Your task to perform on an android device: Search for usb-c on ebay.com, select the first entry, add it to the cart, then select checkout. Image 0: 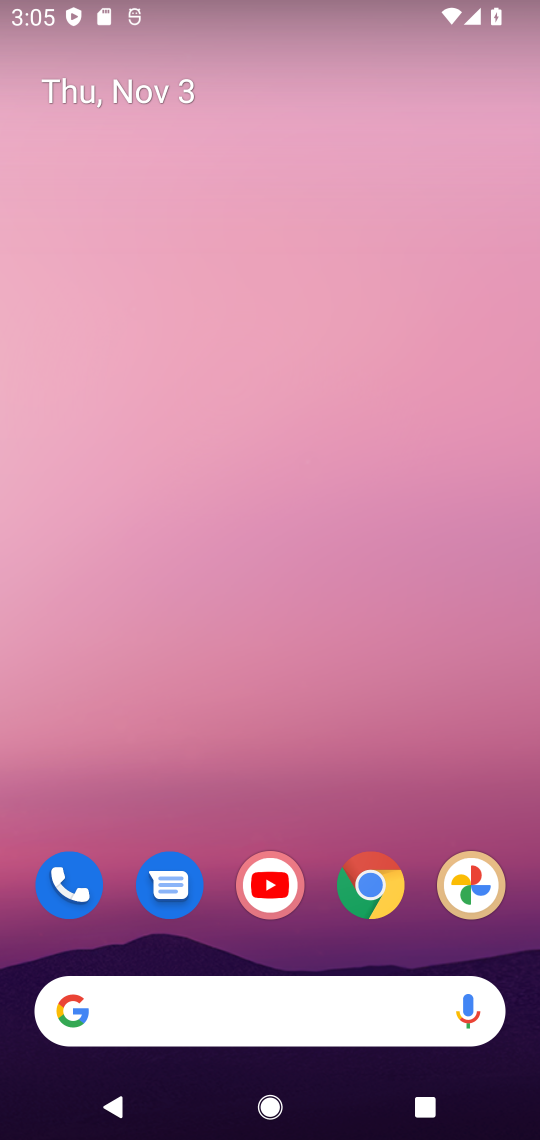
Step 0: drag from (320, 955) to (342, 31)
Your task to perform on an android device: Search for usb-c on ebay.com, select the first entry, add it to the cart, then select checkout. Image 1: 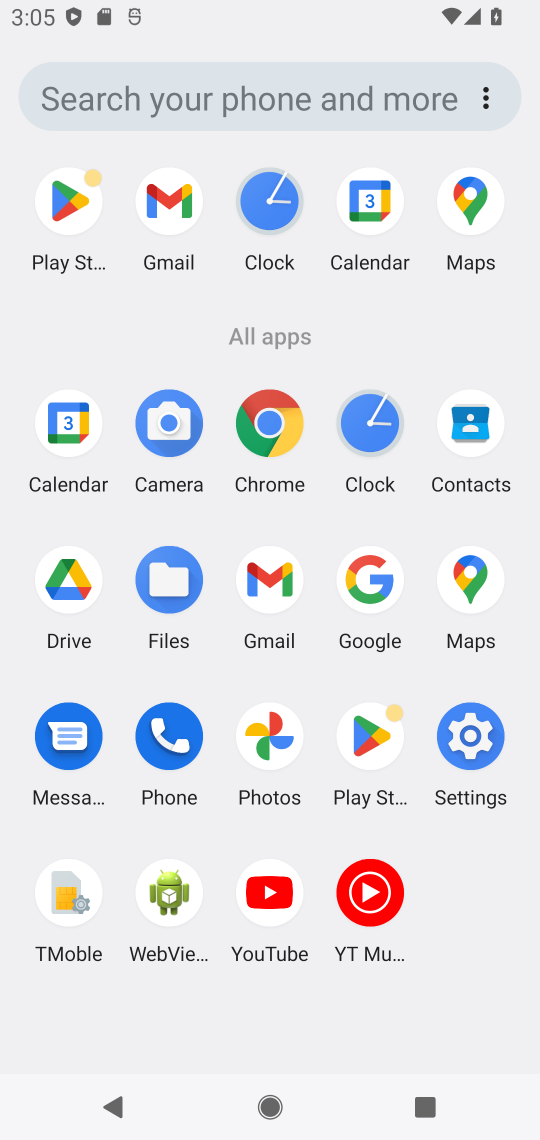
Step 1: click (265, 417)
Your task to perform on an android device: Search for usb-c on ebay.com, select the first entry, add it to the cart, then select checkout. Image 2: 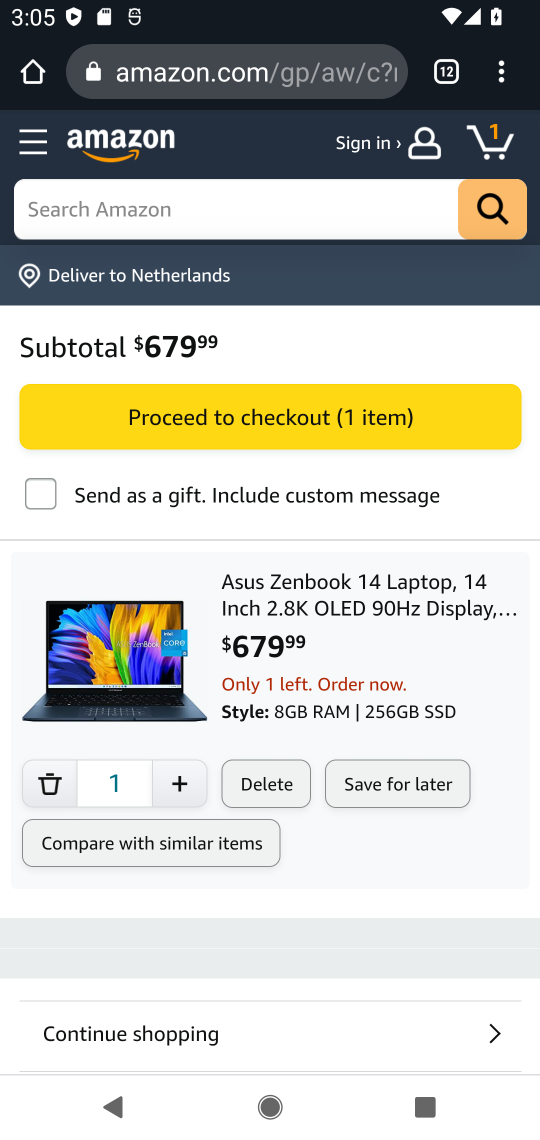
Step 2: drag from (503, 87) to (259, 256)
Your task to perform on an android device: Search for usb-c on ebay.com, select the first entry, add it to the cart, then select checkout. Image 3: 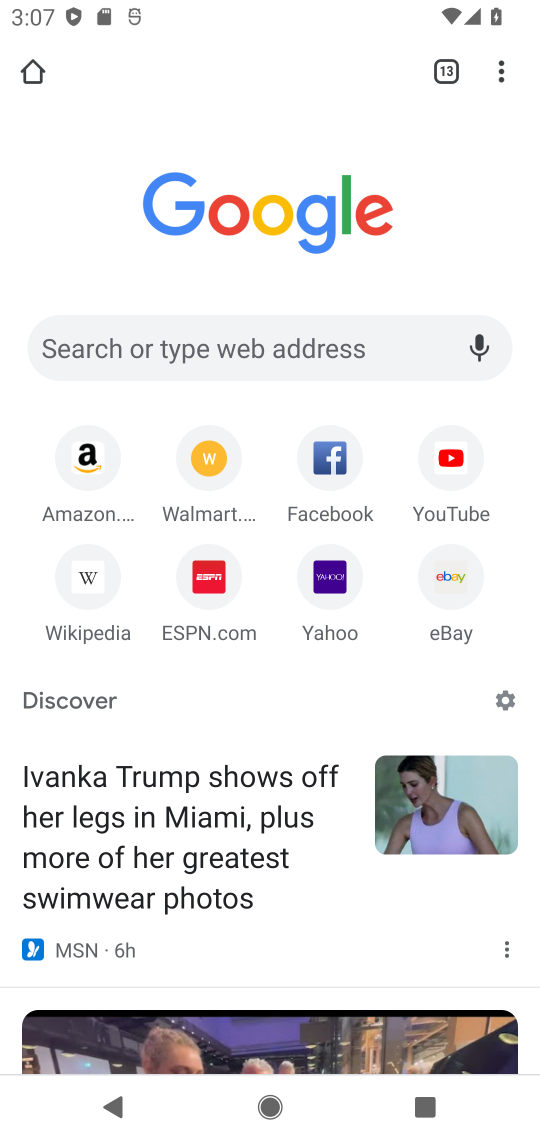
Step 3: click (221, 351)
Your task to perform on an android device: Search for usb-c on ebay.com, select the first entry, add it to the cart, then select checkout. Image 4: 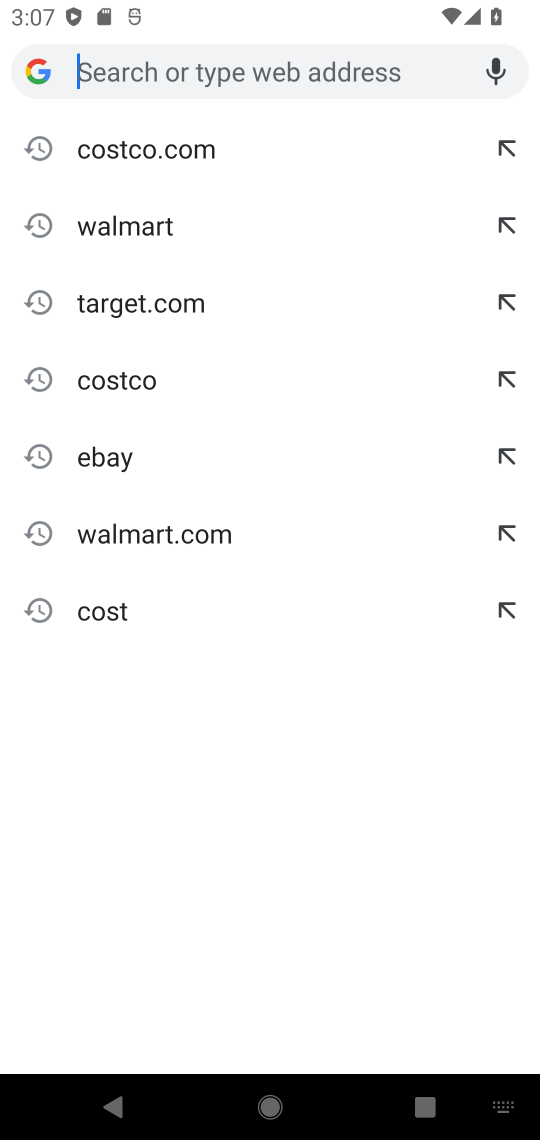
Step 4: type "ebay.com"
Your task to perform on an android device: Search for usb-c on ebay.com, select the first entry, add it to the cart, then select checkout. Image 5: 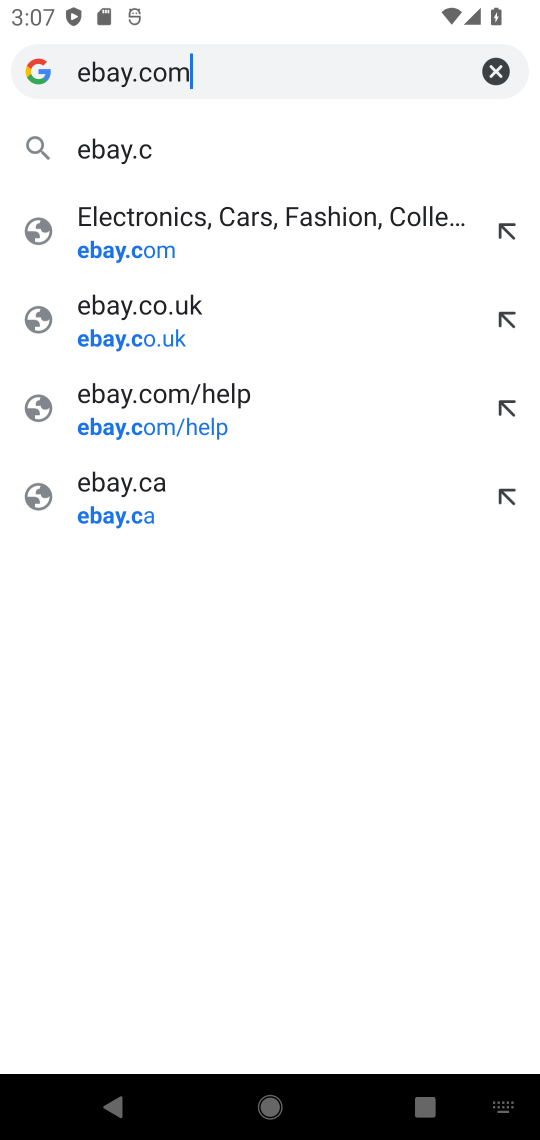
Step 5: type ""
Your task to perform on an android device: Search for usb-c on ebay.com, select the first entry, add it to the cart, then select checkout. Image 6: 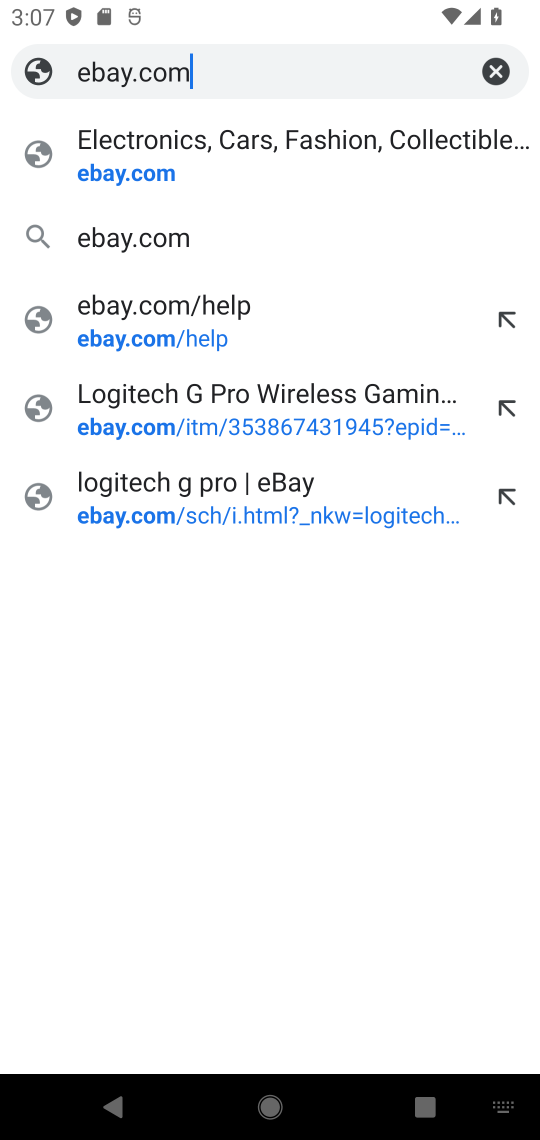
Step 6: click (140, 241)
Your task to perform on an android device: Search for usb-c on ebay.com, select the first entry, add it to the cart, then select checkout. Image 7: 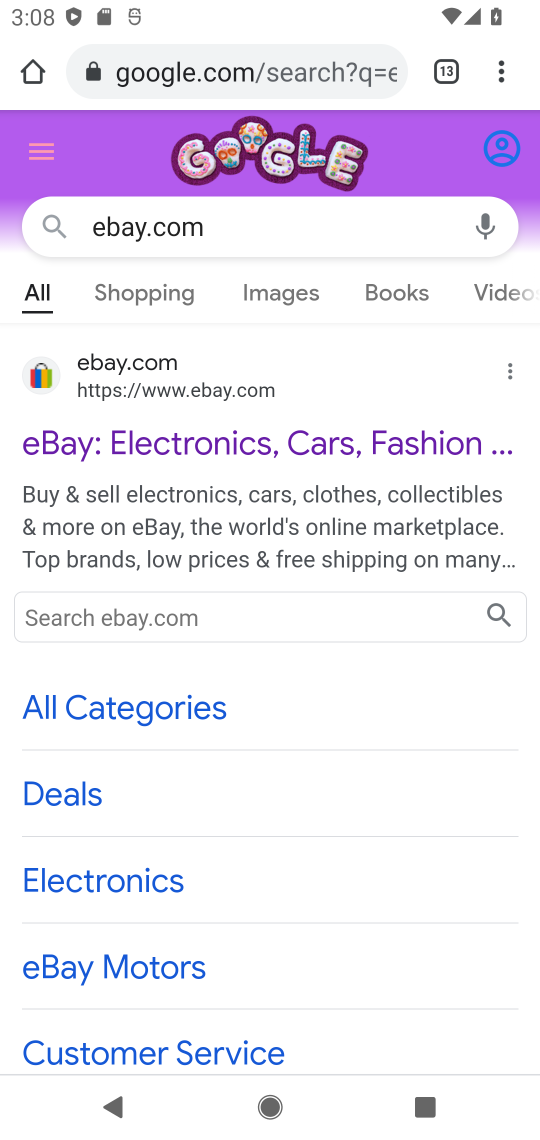
Step 7: click (238, 440)
Your task to perform on an android device: Search for usb-c on ebay.com, select the first entry, add it to the cart, then select checkout. Image 8: 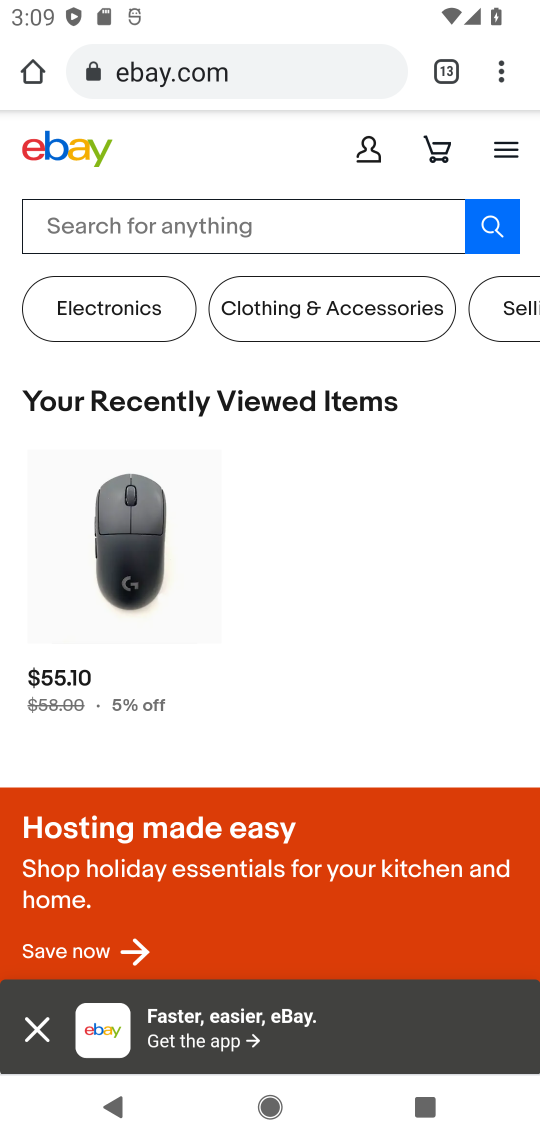
Step 8: click (237, 221)
Your task to perform on an android device: Search for usb-c on ebay.com, select the first entry, add it to the cart, then select checkout. Image 9: 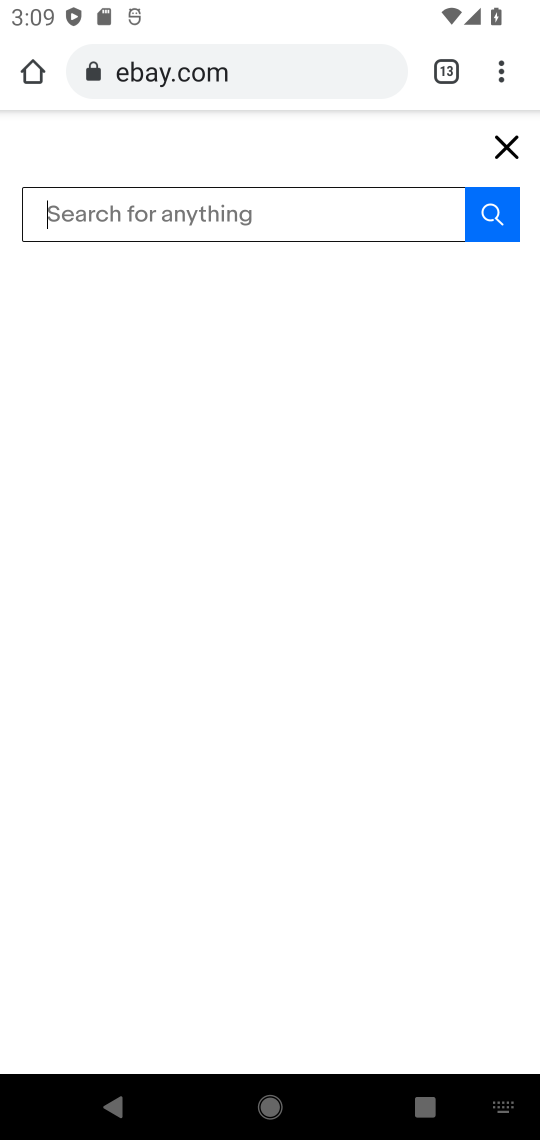
Step 9: type "usb-c on"
Your task to perform on an android device: Search for usb-c on ebay.com, select the first entry, add it to the cart, then select checkout. Image 10: 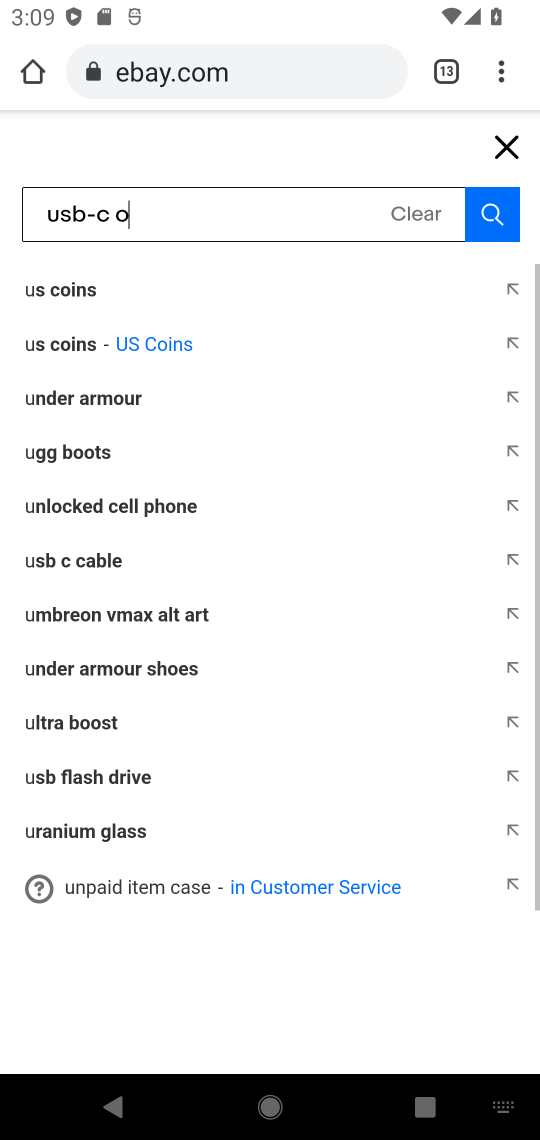
Step 10: type ""
Your task to perform on an android device: Search for usb-c on ebay.com, select the first entry, add it to the cart, then select checkout. Image 11: 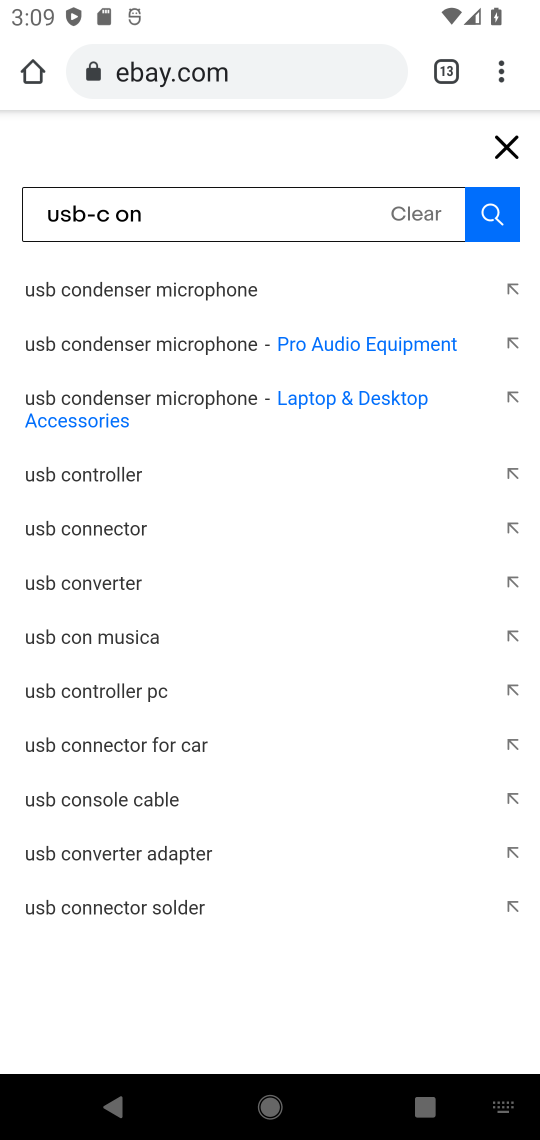
Step 11: click (488, 210)
Your task to perform on an android device: Search for usb-c on ebay.com, select the first entry, add it to the cart, then select checkout. Image 12: 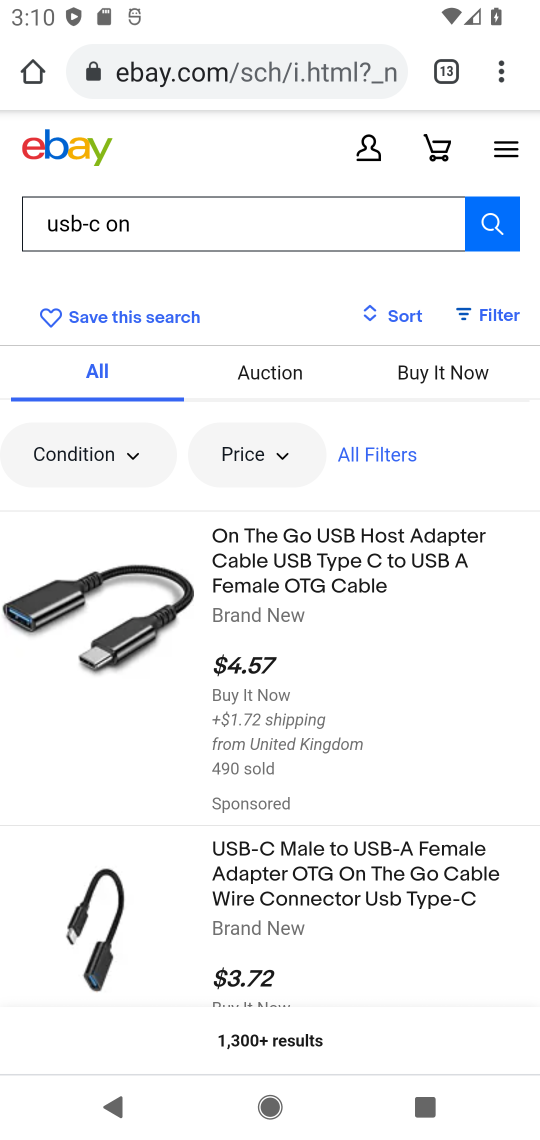
Step 12: click (256, 866)
Your task to perform on an android device: Search for usb-c on ebay.com, select the first entry, add it to the cart, then select checkout. Image 13: 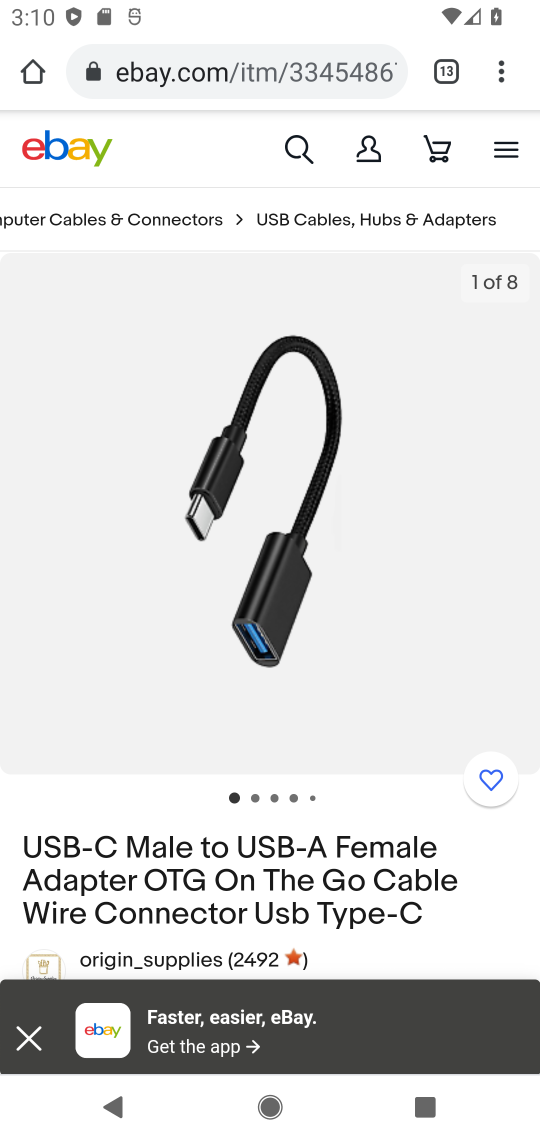
Step 13: drag from (258, 863) to (222, 337)
Your task to perform on an android device: Search for usb-c on ebay.com, select the first entry, add it to the cart, then select checkout. Image 14: 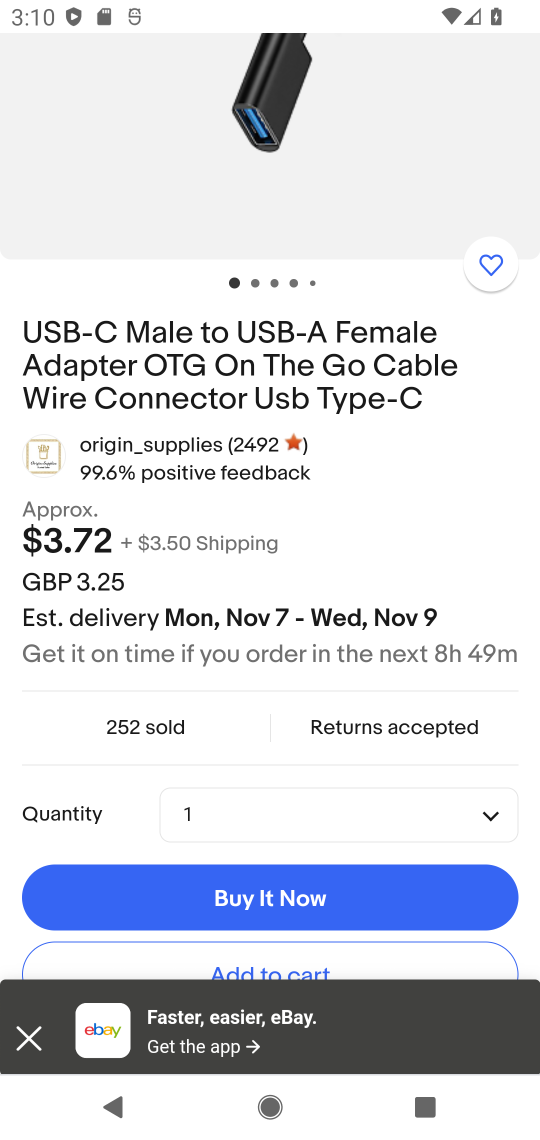
Step 14: drag from (337, 817) to (237, 348)
Your task to perform on an android device: Search for usb-c on ebay.com, select the first entry, add it to the cart, then select checkout. Image 15: 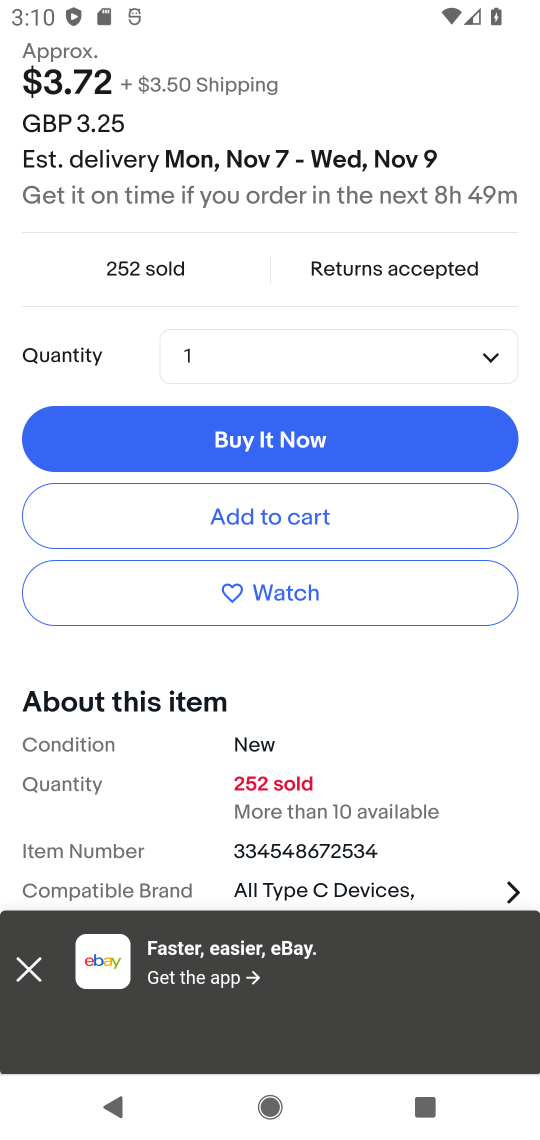
Step 15: click (270, 516)
Your task to perform on an android device: Search for usb-c on ebay.com, select the first entry, add it to the cart, then select checkout. Image 16: 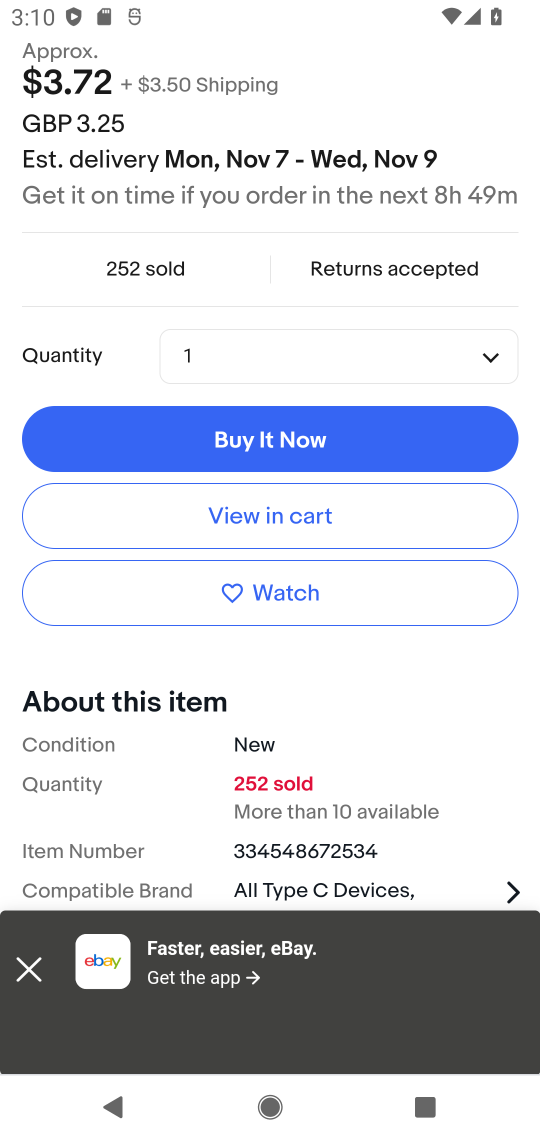
Step 16: drag from (255, 316) to (248, 802)
Your task to perform on an android device: Search for usb-c on ebay.com, select the first entry, add it to the cart, then select checkout. Image 17: 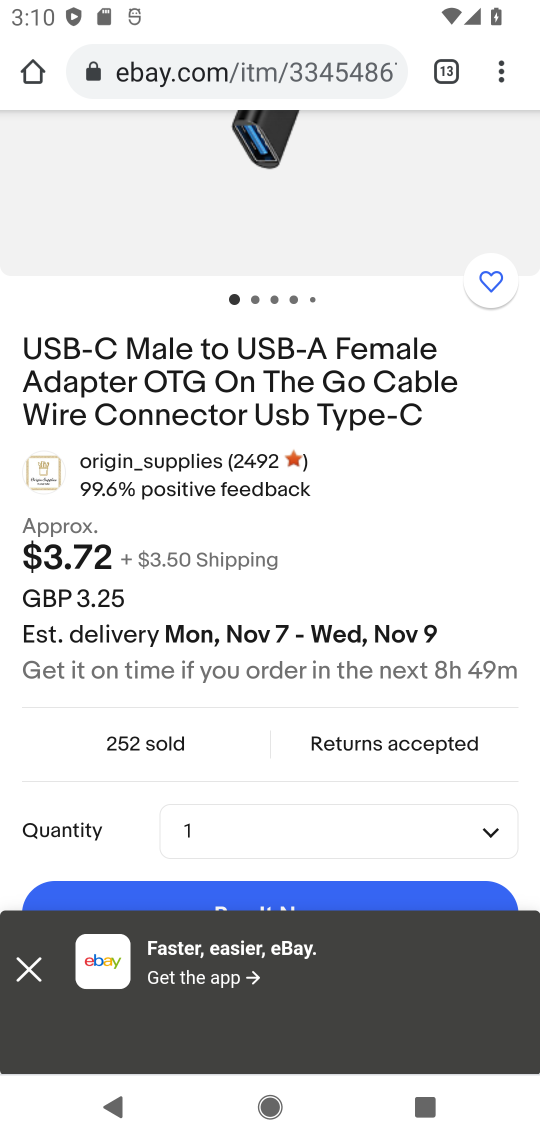
Step 17: drag from (262, 245) to (249, 722)
Your task to perform on an android device: Search for usb-c on ebay.com, select the first entry, add it to the cart, then select checkout. Image 18: 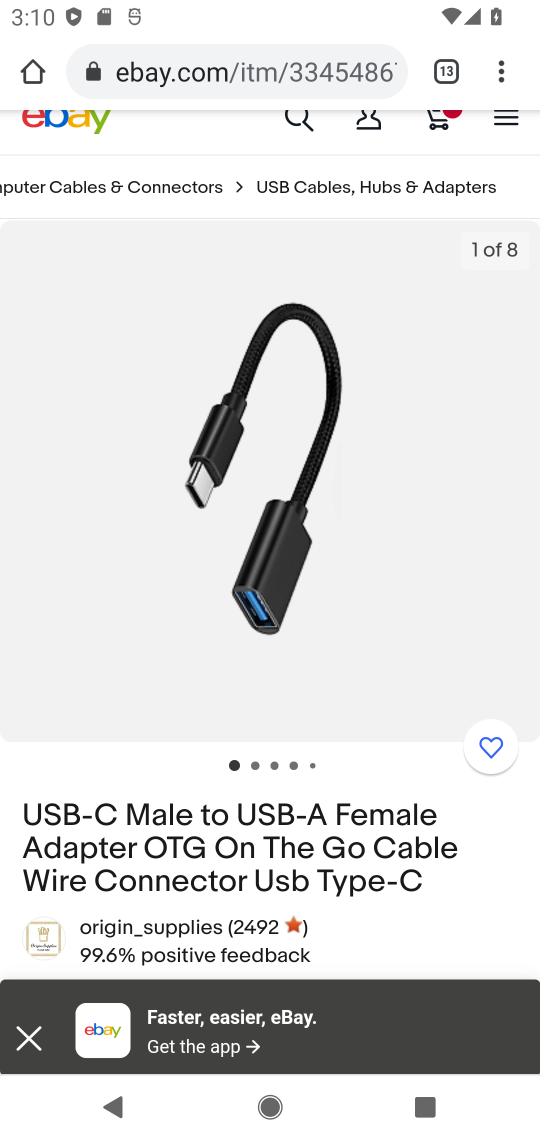
Step 18: drag from (292, 285) to (330, 759)
Your task to perform on an android device: Search for usb-c on ebay.com, select the first entry, add it to the cart, then select checkout. Image 19: 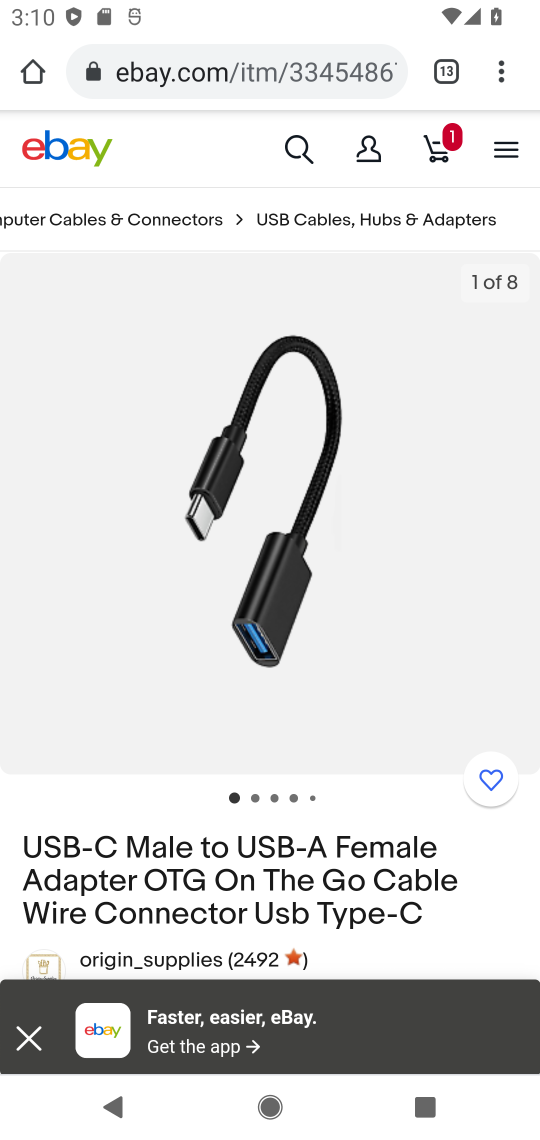
Step 19: click (441, 141)
Your task to perform on an android device: Search for usb-c on ebay.com, select the first entry, add it to the cart, then select checkout. Image 20: 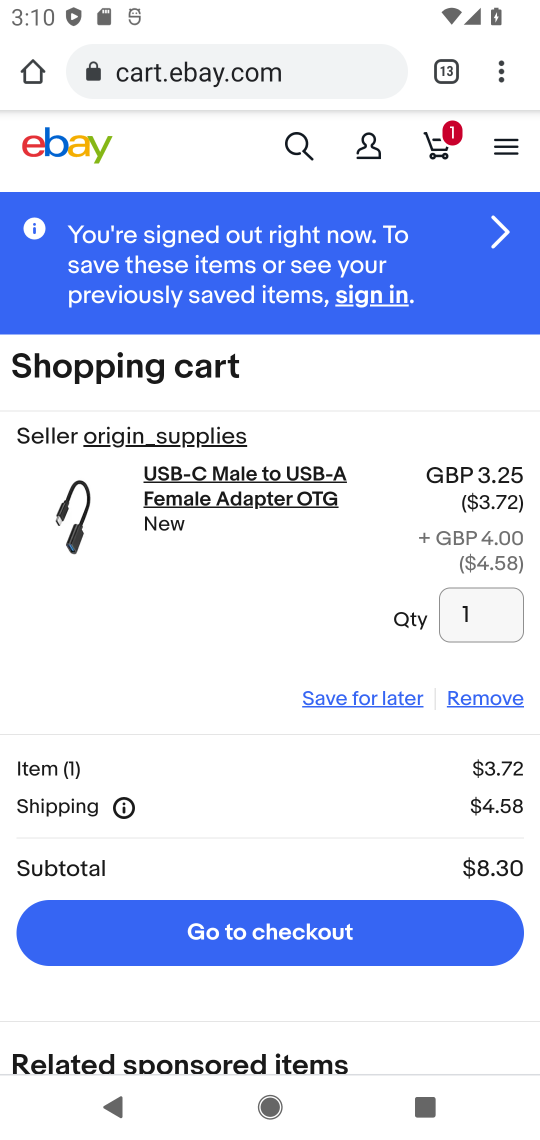
Step 20: task complete